Your task to perform on an android device: Open settings Image 0: 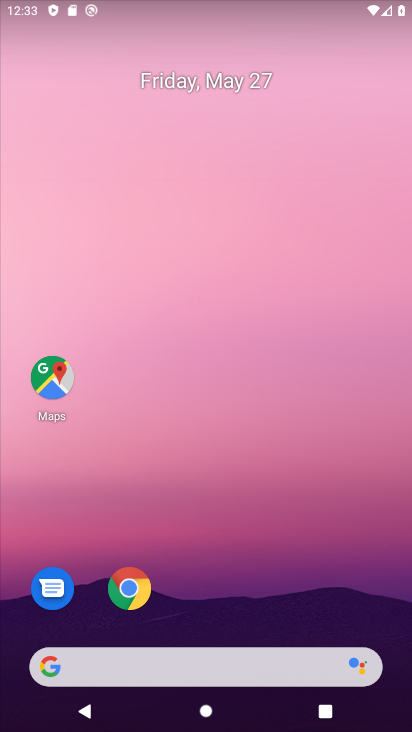
Step 0: press home button
Your task to perform on an android device: Open settings Image 1: 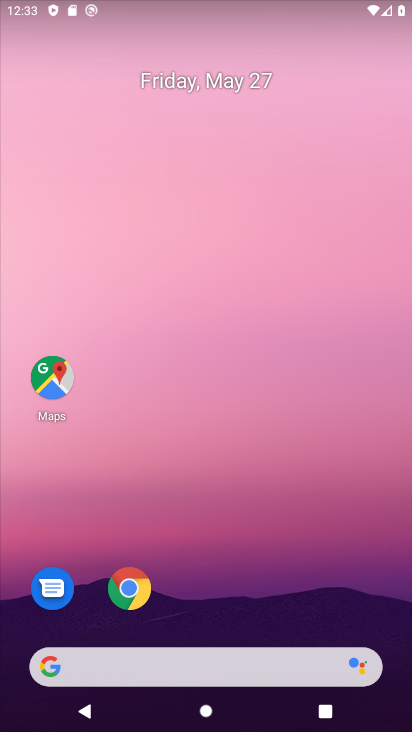
Step 1: drag from (221, 627) to (207, 97)
Your task to perform on an android device: Open settings Image 2: 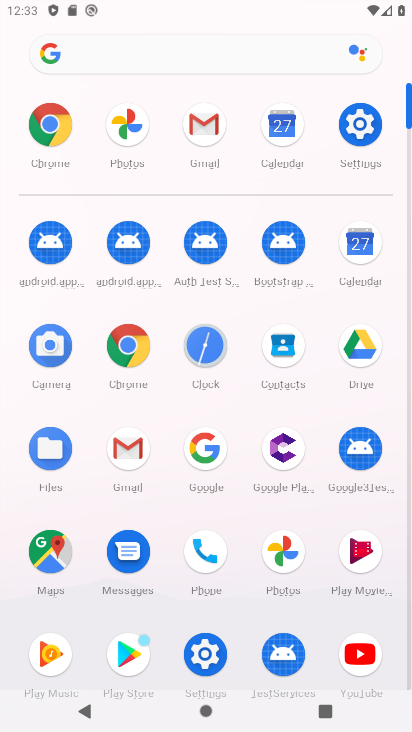
Step 2: click (358, 117)
Your task to perform on an android device: Open settings Image 3: 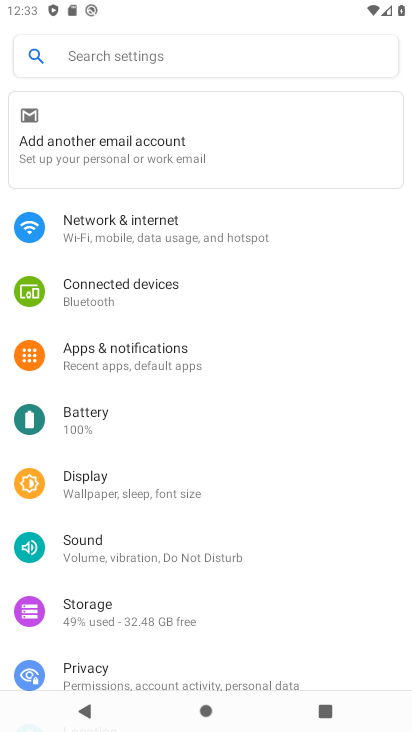
Step 3: task complete